Your task to perform on an android device: How do I get to the nearest Apple Store? Image 0: 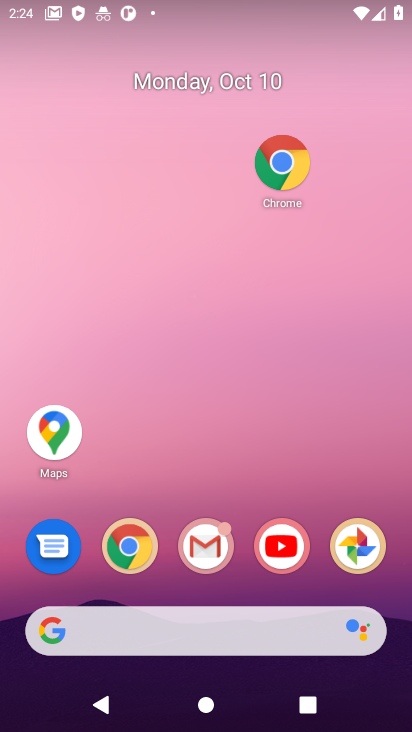
Step 0: click (129, 555)
Your task to perform on an android device: How do I get to the nearest Apple Store? Image 1: 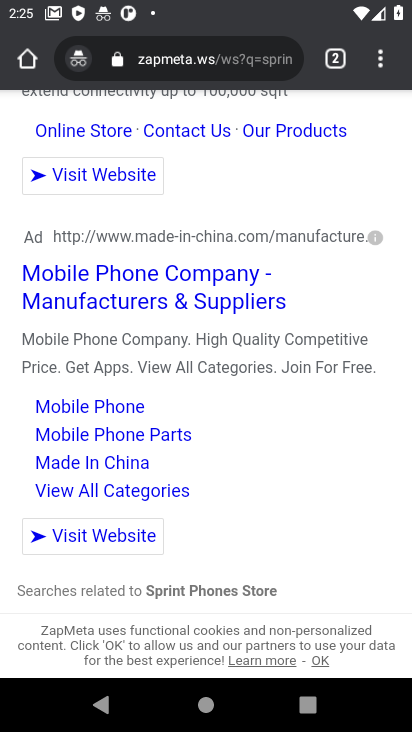
Step 1: click (243, 62)
Your task to perform on an android device: How do I get to the nearest Apple Store? Image 2: 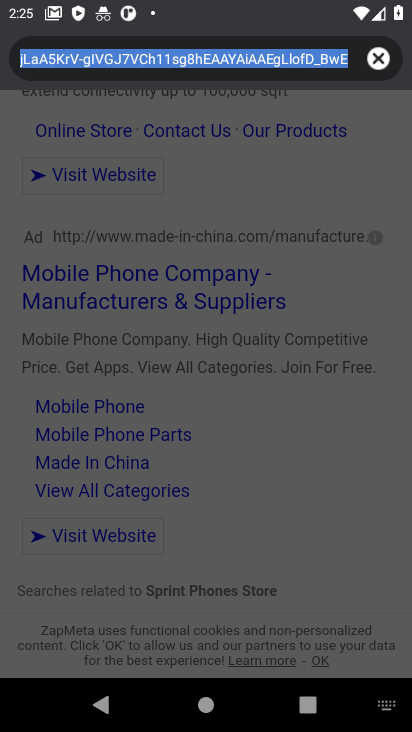
Step 2: click (365, 58)
Your task to perform on an android device: How do I get to the nearest Apple Store? Image 3: 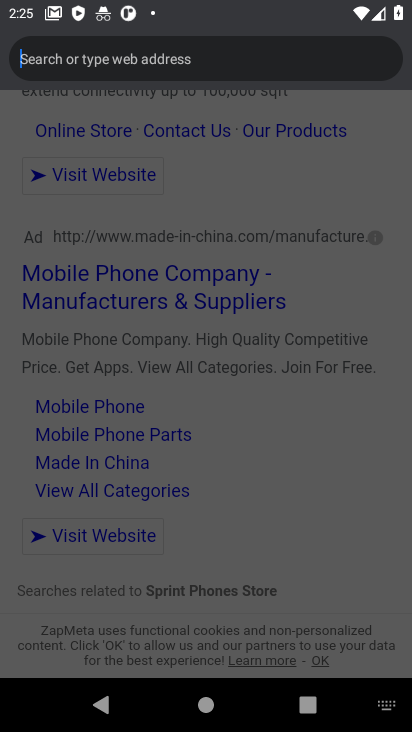
Step 3: type "How do I get to the nearest Apple Store?"
Your task to perform on an android device: How do I get to the nearest Apple Store? Image 4: 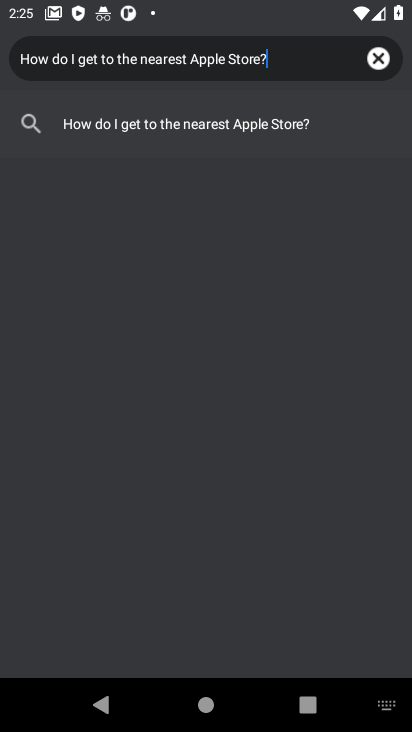
Step 4: type ""
Your task to perform on an android device: How do I get to the nearest Apple Store? Image 5: 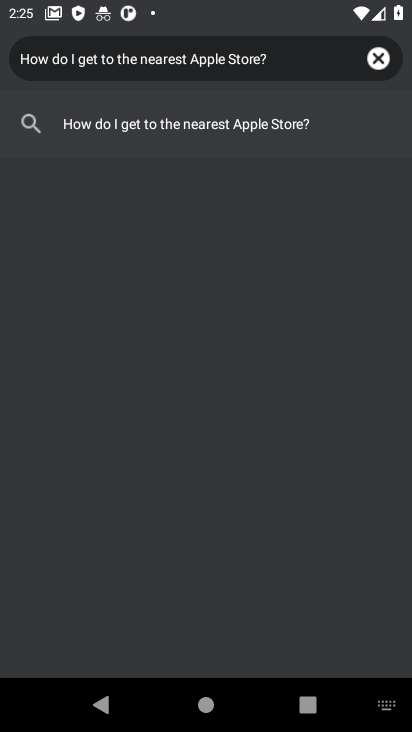
Step 5: click (163, 106)
Your task to perform on an android device: How do I get to the nearest Apple Store? Image 6: 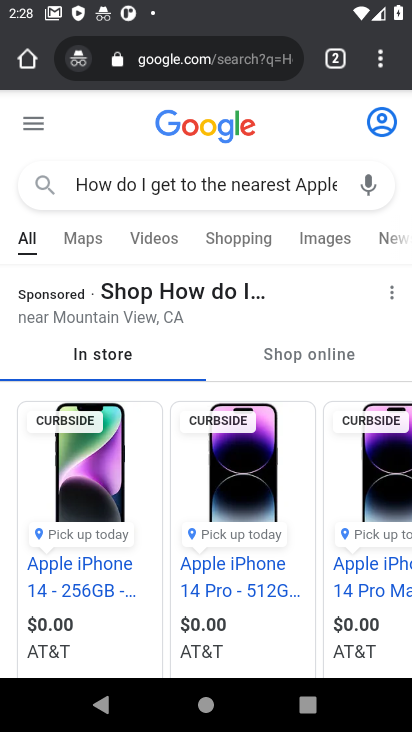
Step 6: task complete